Your task to perform on an android device: stop showing notifications on the lock screen Image 0: 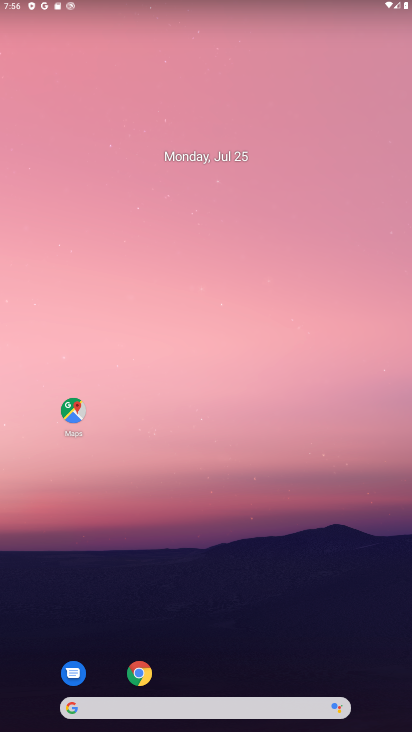
Step 0: drag from (244, 678) to (220, 173)
Your task to perform on an android device: stop showing notifications on the lock screen Image 1: 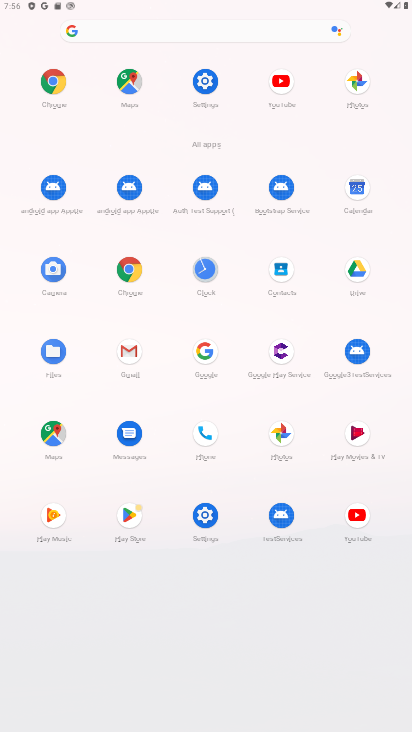
Step 1: click (192, 101)
Your task to perform on an android device: stop showing notifications on the lock screen Image 2: 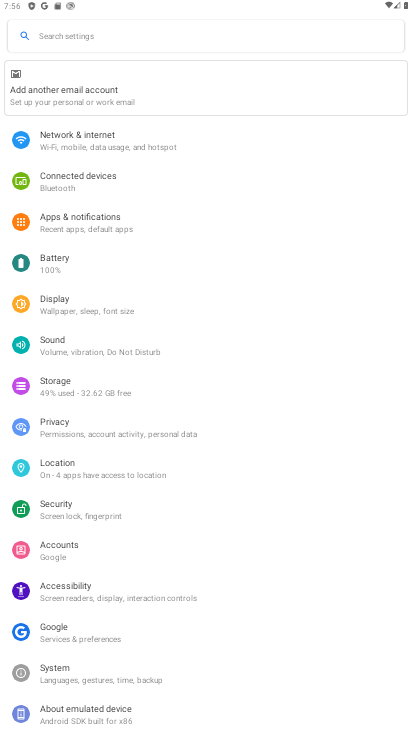
Step 2: click (114, 459)
Your task to perform on an android device: stop showing notifications on the lock screen Image 3: 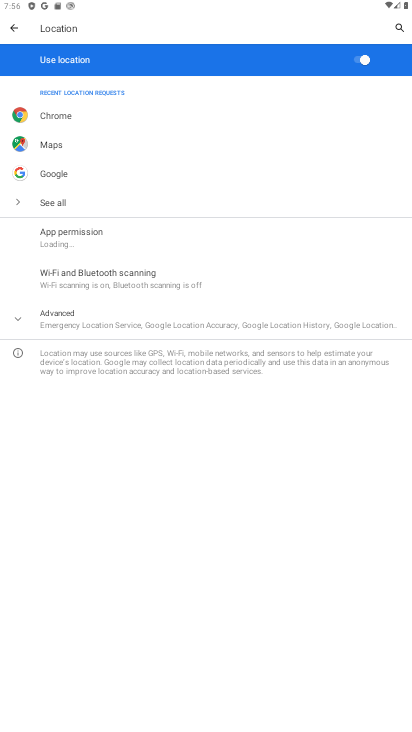
Step 3: task complete